Your task to perform on an android device: Open Maps and search for coffee Image 0: 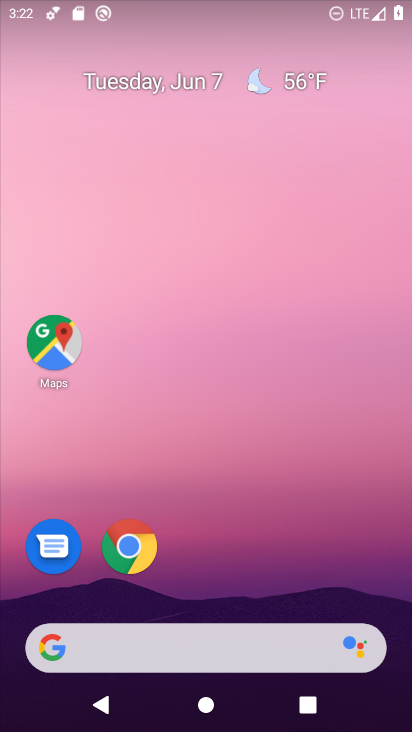
Step 0: drag from (269, 524) to (207, 12)
Your task to perform on an android device: Open Maps and search for coffee Image 1: 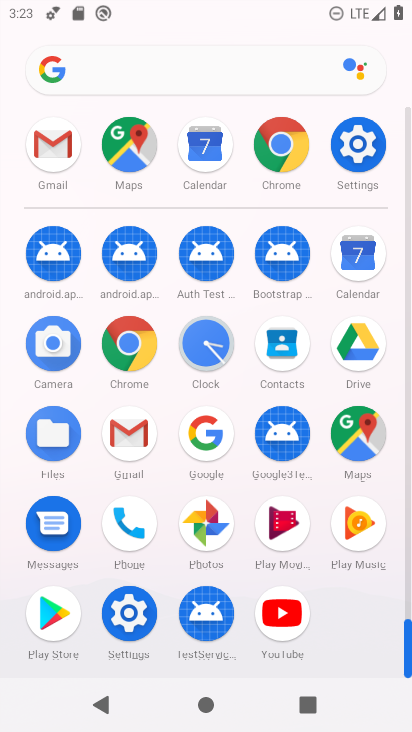
Step 1: drag from (7, 508) to (25, 231)
Your task to perform on an android device: Open Maps and search for coffee Image 2: 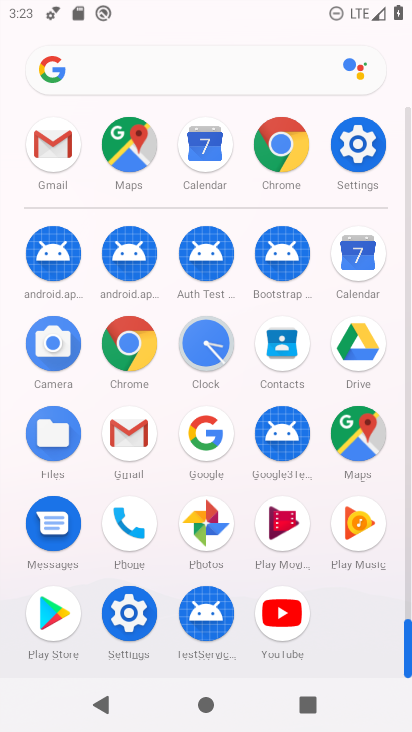
Step 2: click (356, 422)
Your task to perform on an android device: Open Maps and search for coffee Image 3: 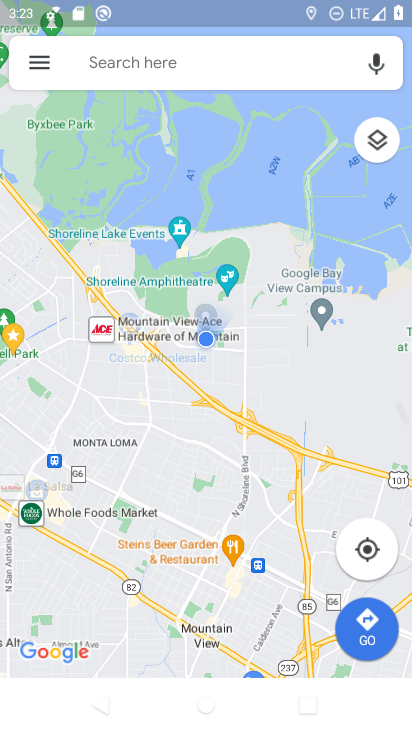
Step 3: click (191, 58)
Your task to perform on an android device: Open Maps and search for coffee Image 4: 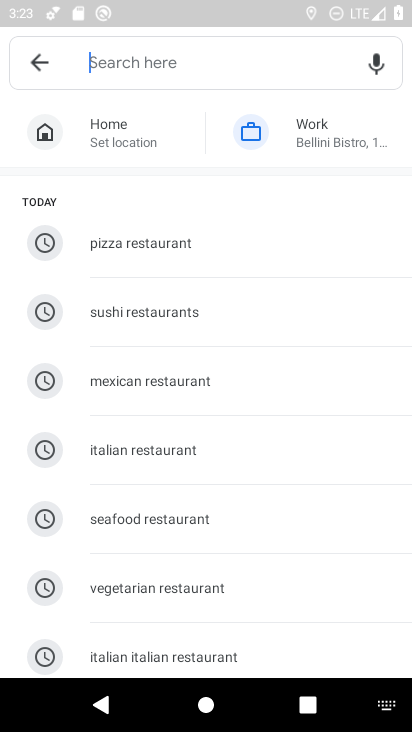
Step 4: type "coffee"
Your task to perform on an android device: Open Maps and search for coffee Image 5: 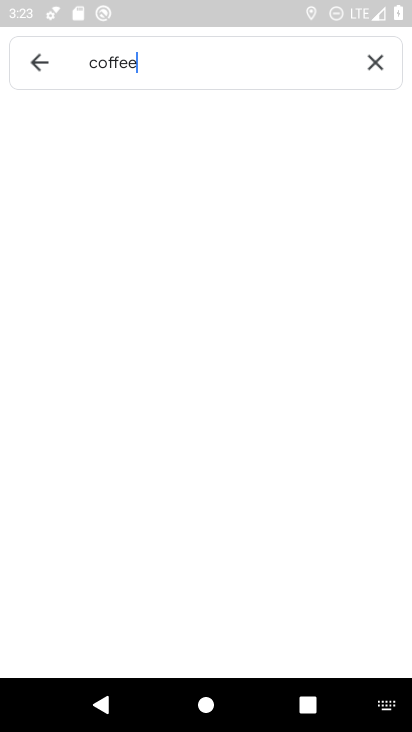
Step 5: type ""
Your task to perform on an android device: Open Maps and search for coffee Image 6: 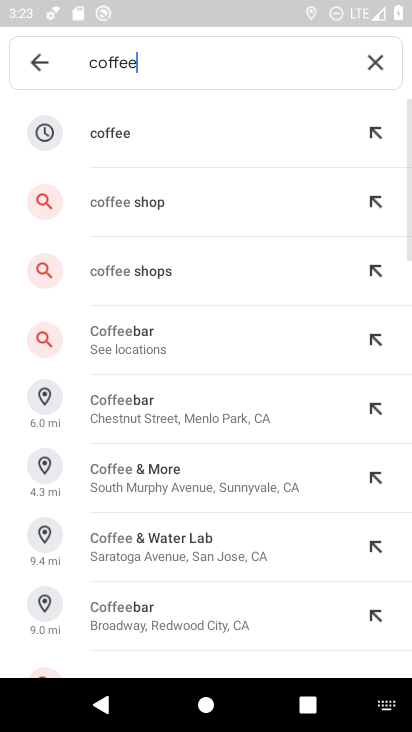
Step 6: click (123, 192)
Your task to perform on an android device: Open Maps and search for coffee Image 7: 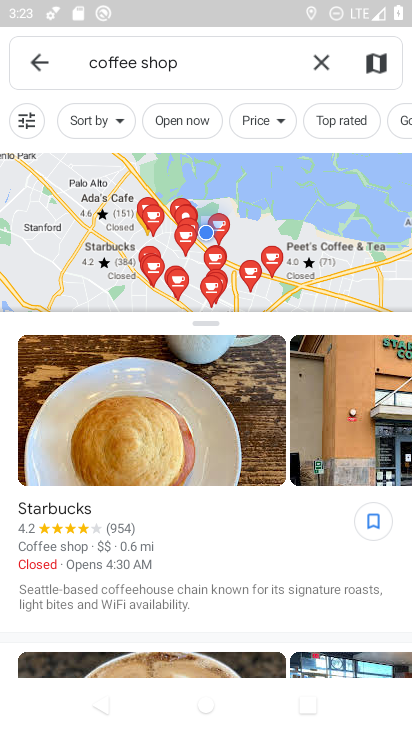
Step 7: task complete